Your task to perform on an android device: Open Yahoo.com Image 0: 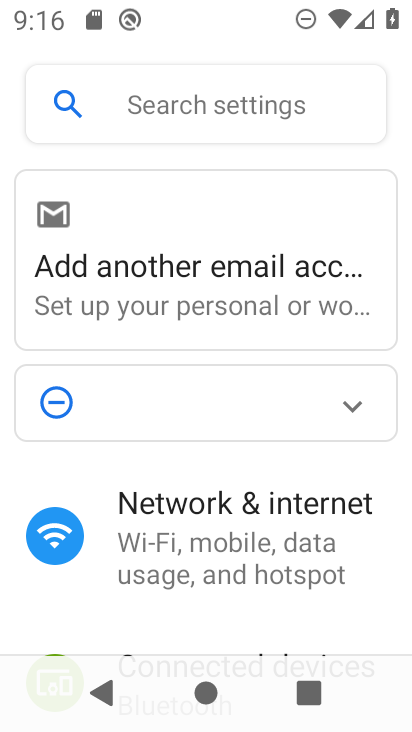
Step 0: press home button
Your task to perform on an android device: Open Yahoo.com Image 1: 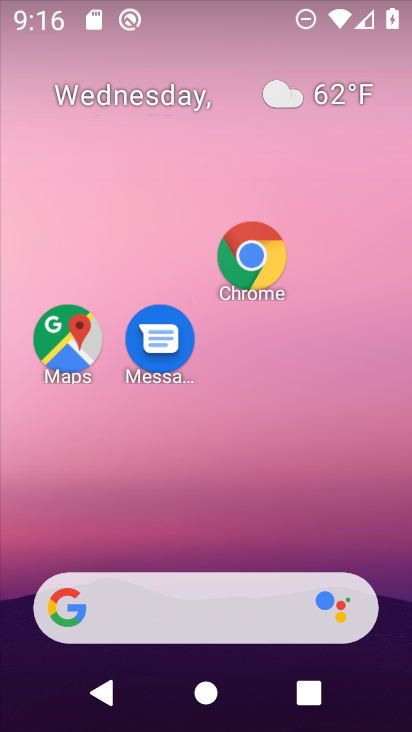
Step 1: click (252, 257)
Your task to perform on an android device: Open Yahoo.com Image 2: 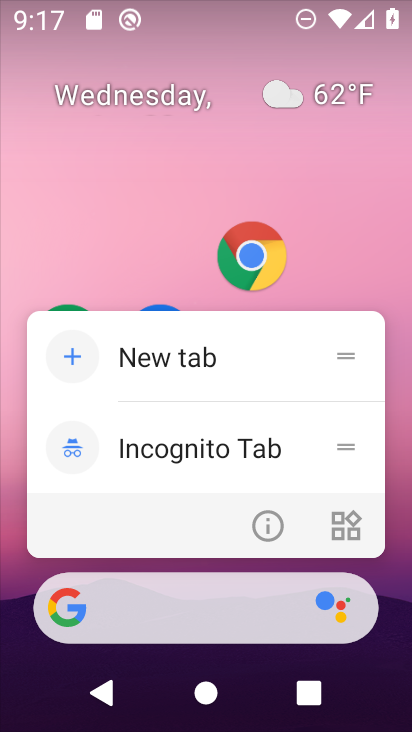
Step 2: click (252, 257)
Your task to perform on an android device: Open Yahoo.com Image 3: 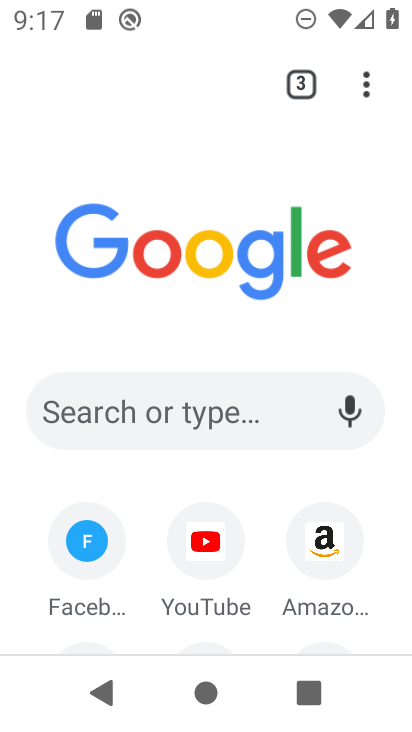
Step 3: drag from (292, 473) to (262, 124)
Your task to perform on an android device: Open Yahoo.com Image 4: 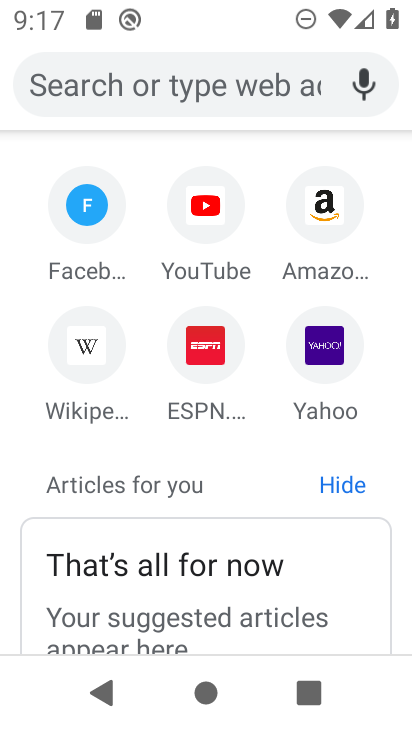
Step 4: click (306, 343)
Your task to perform on an android device: Open Yahoo.com Image 5: 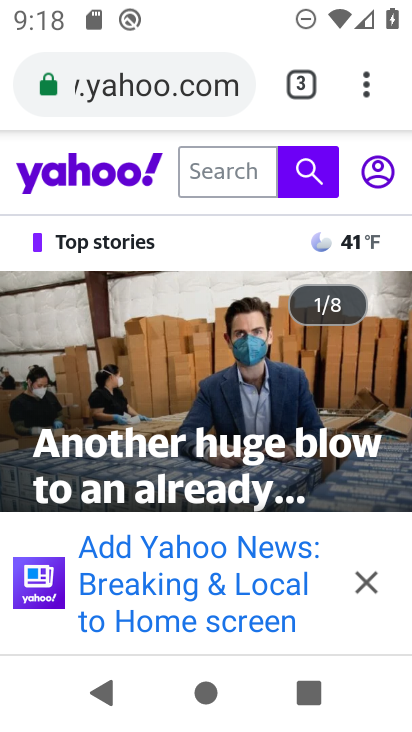
Step 5: task complete